Your task to perform on an android device: View the shopping cart on amazon.com. Add "macbook pro" to the cart on amazon.com, then select checkout. Image 0: 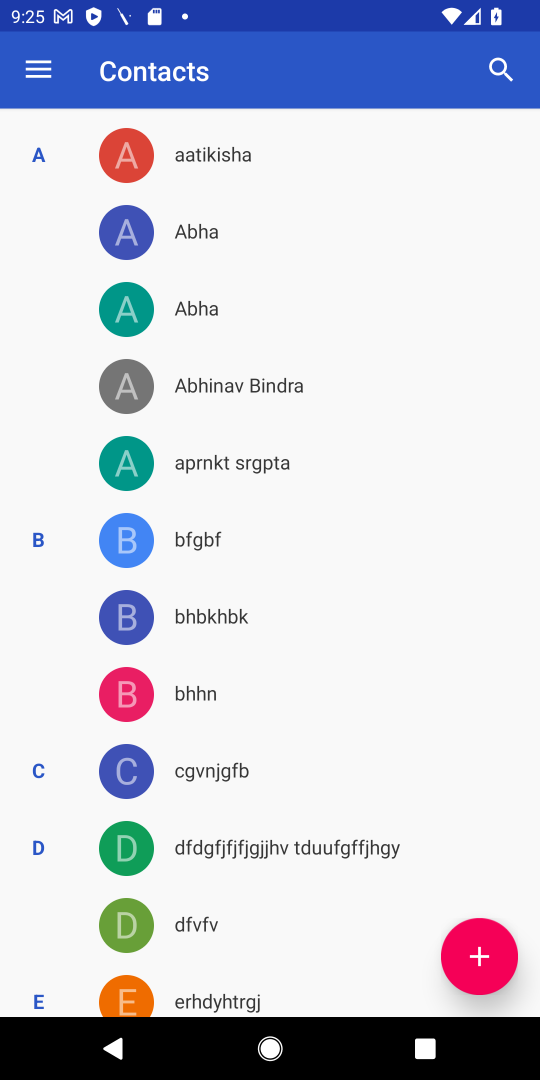
Step 0: press home button
Your task to perform on an android device: View the shopping cart on amazon.com. Add "macbook pro" to the cart on amazon.com, then select checkout. Image 1: 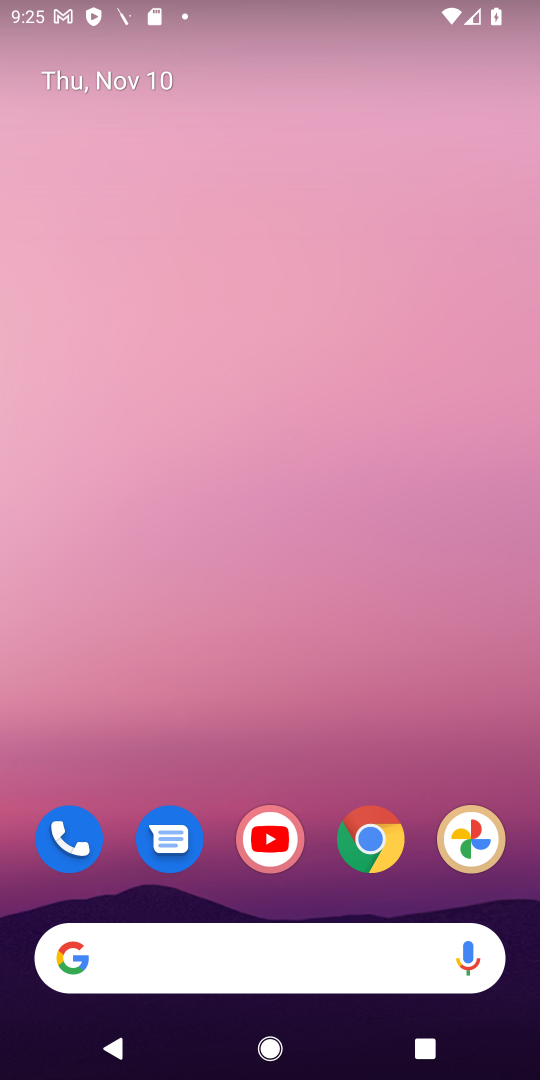
Step 1: click (373, 844)
Your task to perform on an android device: View the shopping cart on amazon.com. Add "macbook pro" to the cart on amazon.com, then select checkout. Image 2: 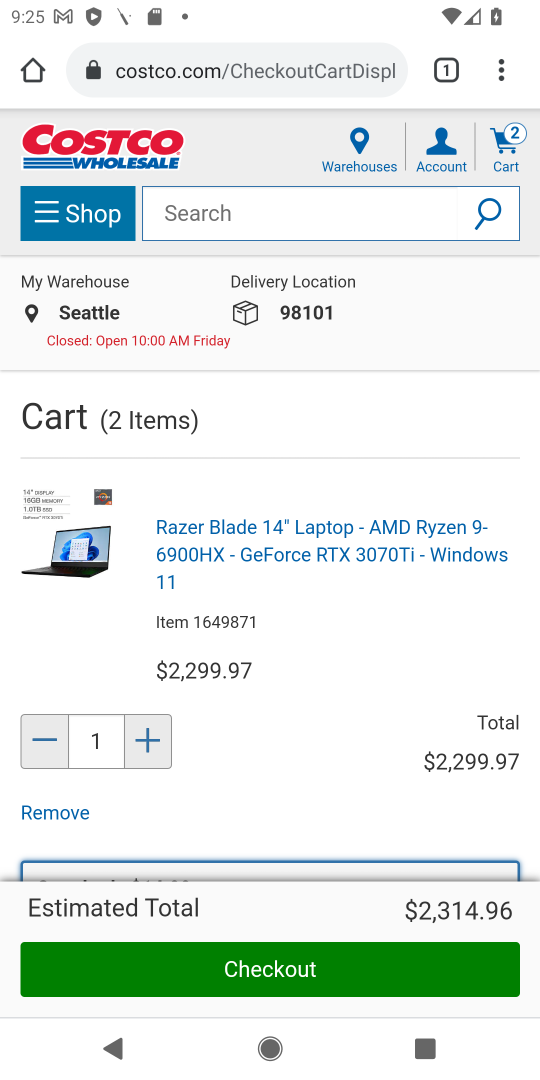
Step 2: click (288, 61)
Your task to perform on an android device: View the shopping cart on amazon.com. Add "macbook pro" to the cart on amazon.com, then select checkout. Image 3: 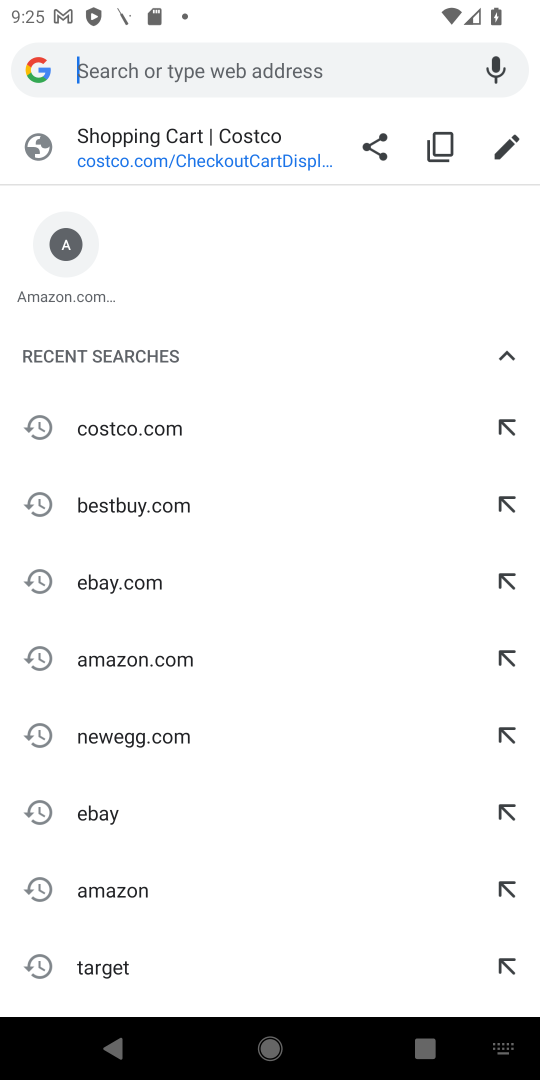
Step 3: type "amazon.com"
Your task to perform on an android device: View the shopping cart on amazon.com. Add "macbook pro" to the cart on amazon.com, then select checkout. Image 4: 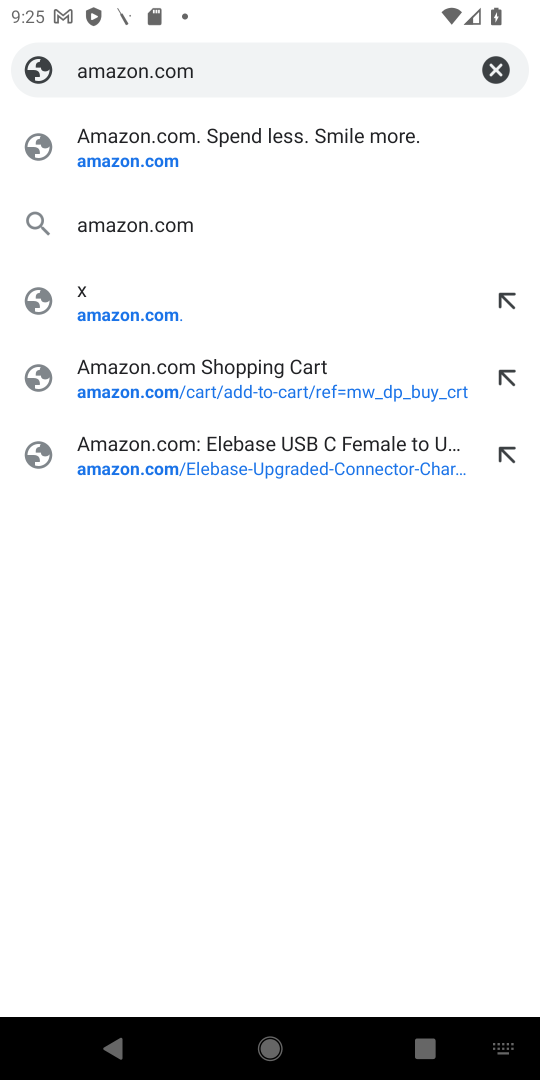
Step 4: click (165, 229)
Your task to perform on an android device: View the shopping cart on amazon.com. Add "macbook pro" to the cart on amazon.com, then select checkout. Image 5: 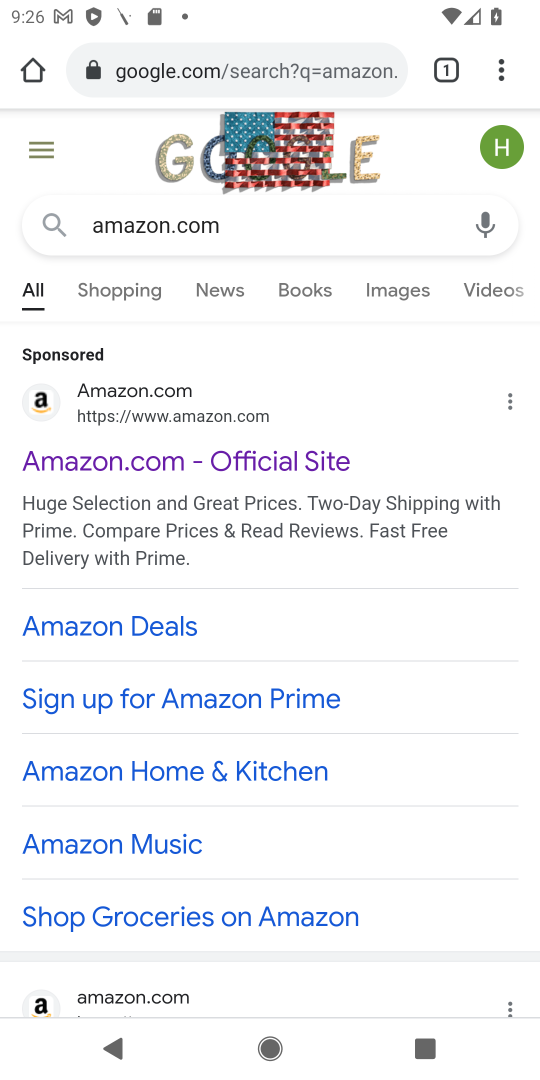
Step 5: click (200, 409)
Your task to perform on an android device: View the shopping cart on amazon.com. Add "macbook pro" to the cart on amazon.com, then select checkout. Image 6: 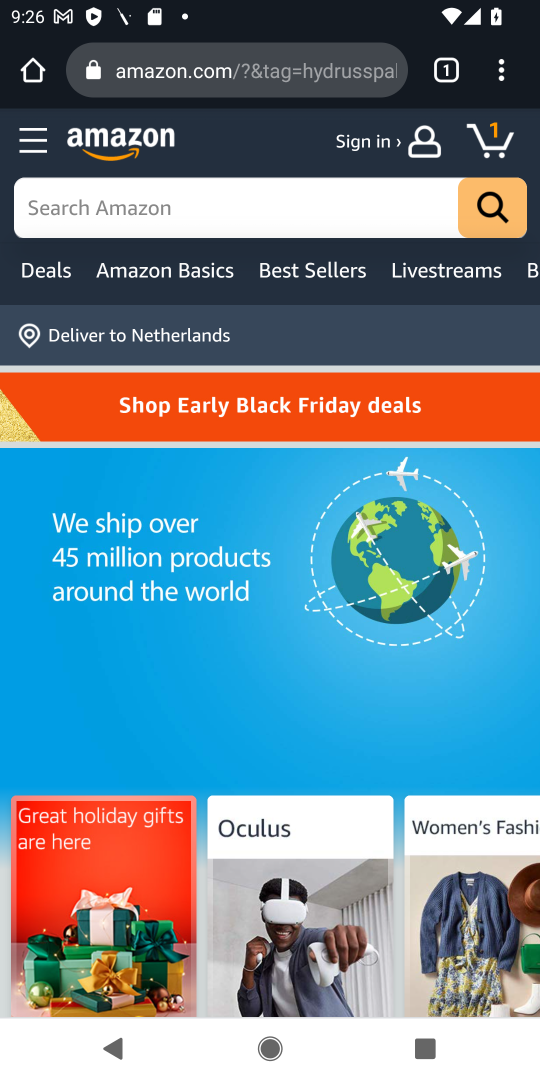
Step 6: click (336, 206)
Your task to perform on an android device: View the shopping cart on amazon.com. Add "macbook pro" to the cart on amazon.com, then select checkout. Image 7: 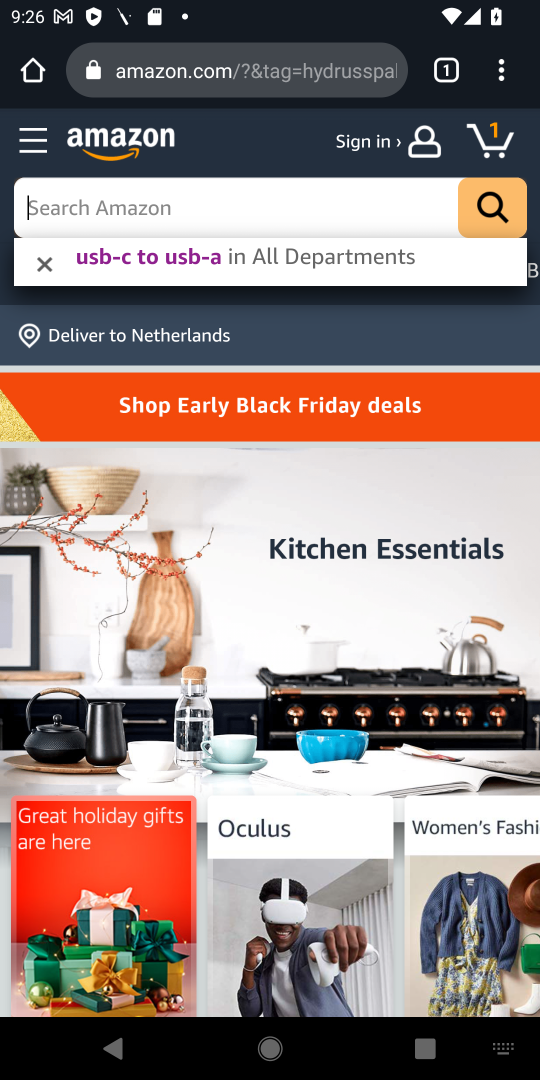
Step 7: type "macbook pro"
Your task to perform on an android device: View the shopping cart on amazon.com. Add "macbook pro" to the cart on amazon.com, then select checkout. Image 8: 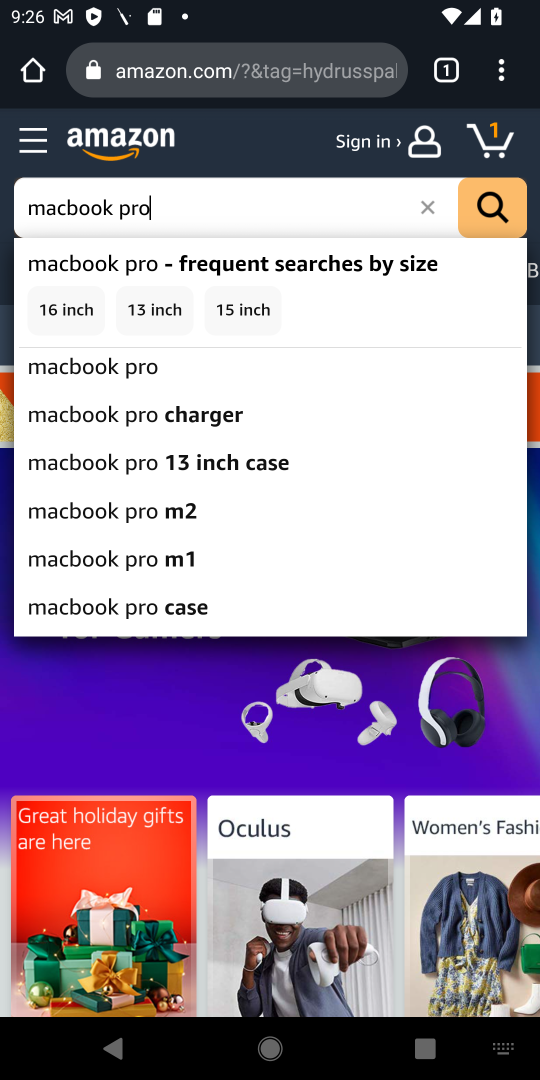
Step 8: click (138, 366)
Your task to perform on an android device: View the shopping cart on amazon.com. Add "macbook pro" to the cart on amazon.com, then select checkout. Image 9: 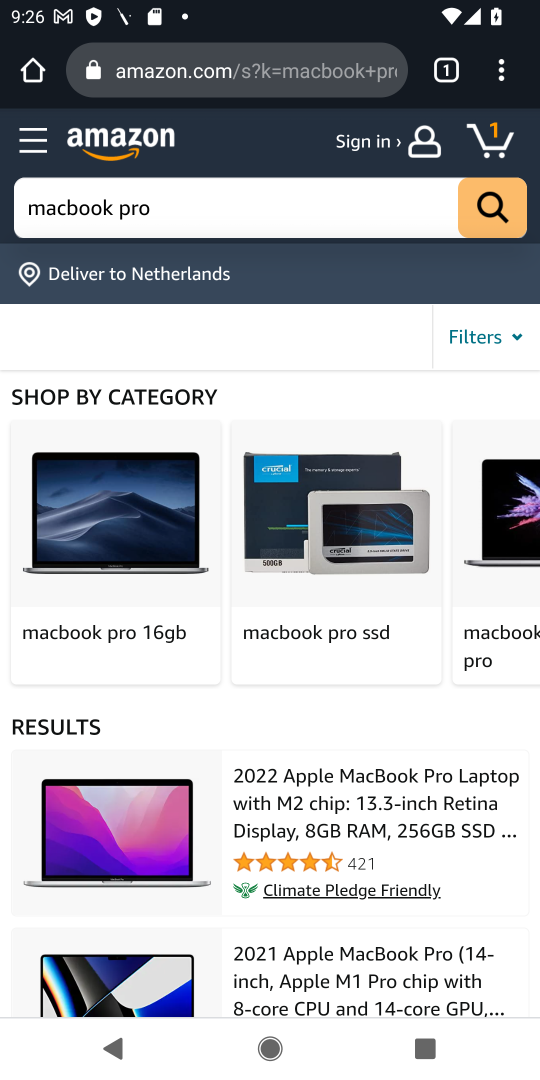
Step 9: click (387, 785)
Your task to perform on an android device: View the shopping cart on amazon.com. Add "macbook pro" to the cart on amazon.com, then select checkout. Image 10: 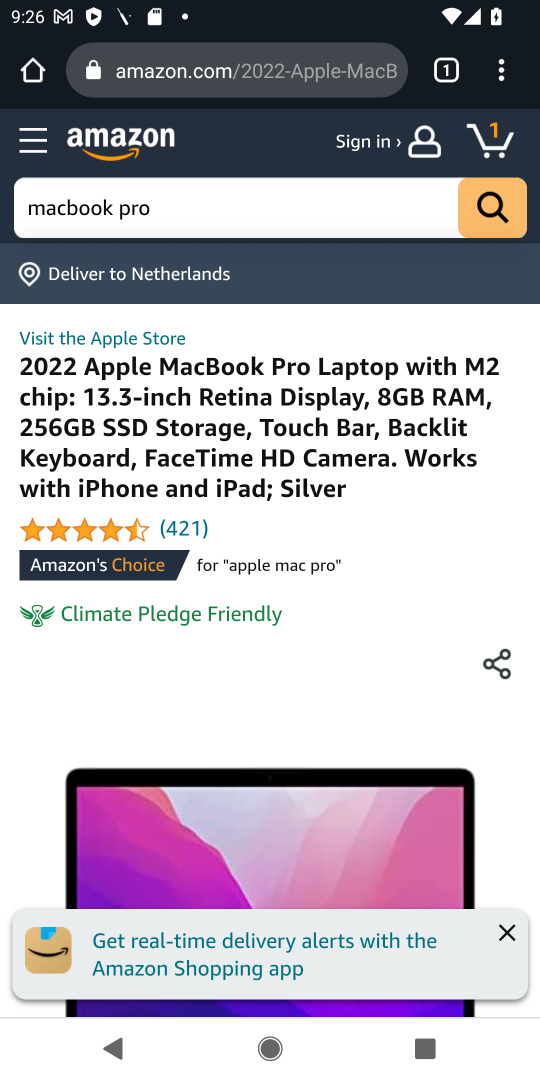
Step 10: drag from (340, 702) to (366, 361)
Your task to perform on an android device: View the shopping cart on amazon.com. Add "macbook pro" to the cart on amazon.com, then select checkout. Image 11: 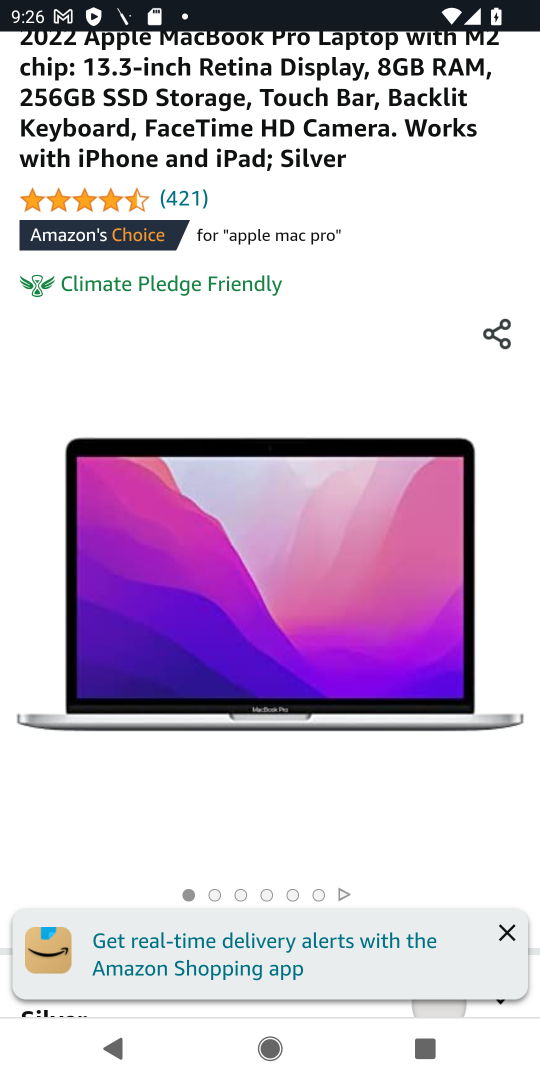
Step 11: drag from (372, 807) to (349, 396)
Your task to perform on an android device: View the shopping cart on amazon.com. Add "macbook pro" to the cart on amazon.com, then select checkout. Image 12: 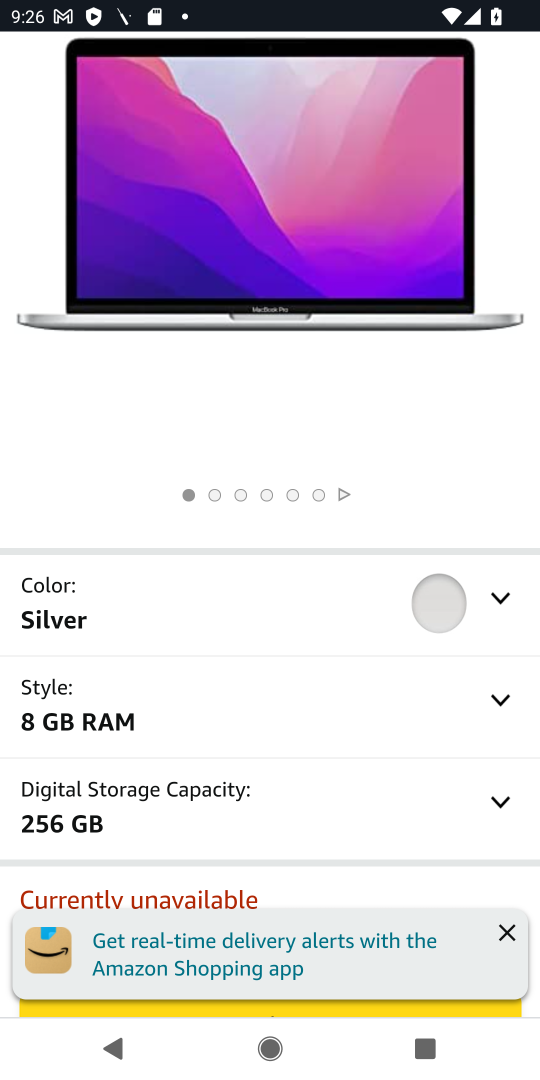
Step 12: drag from (269, 566) to (257, 477)
Your task to perform on an android device: View the shopping cart on amazon.com. Add "macbook pro" to the cart on amazon.com, then select checkout. Image 13: 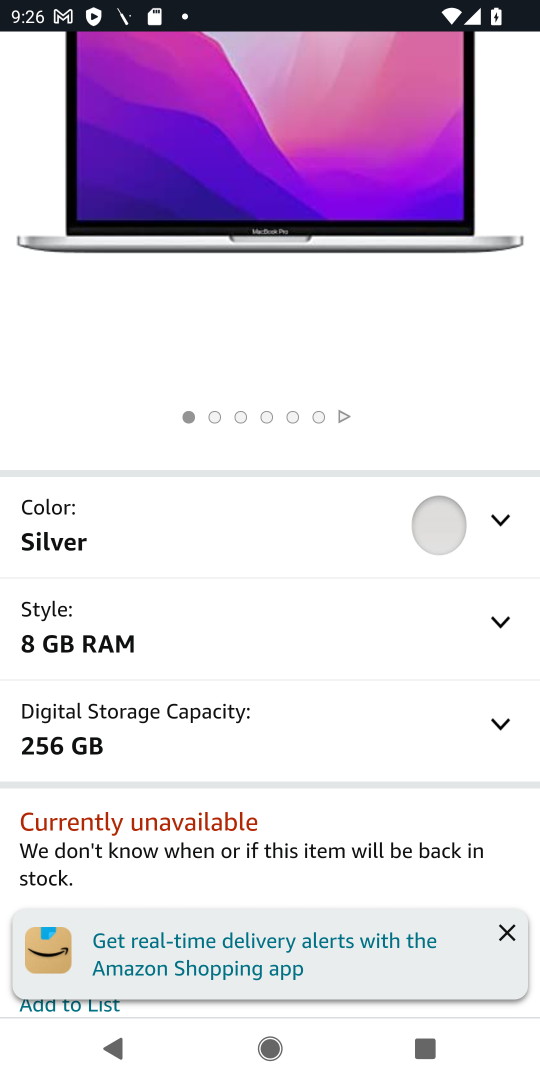
Step 13: drag from (404, 690) to (368, 445)
Your task to perform on an android device: View the shopping cart on amazon.com. Add "macbook pro" to the cart on amazon.com, then select checkout. Image 14: 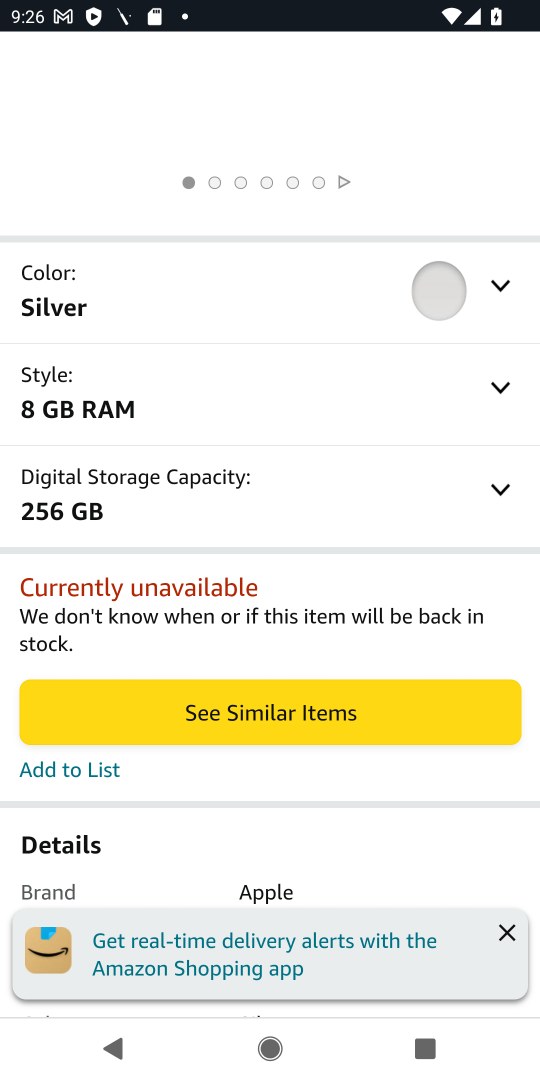
Step 14: press back button
Your task to perform on an android device: View the shopping cart on amazon.com. Add "macbook pro" to the cart on amazon.com, then select checkout. Image 15: 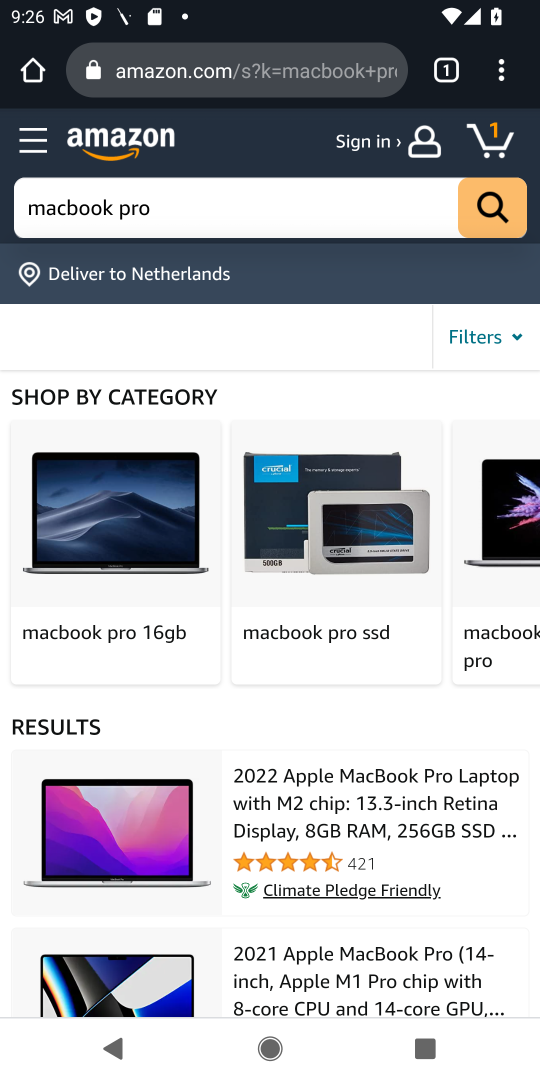
Step 15: drag from (362, 774) to (362, 393)
Your task to perform on an android device: View the shopping cart on amazon.com. Add "macbook pro" to the cart on amazon.com, then select checkout. Image 16: 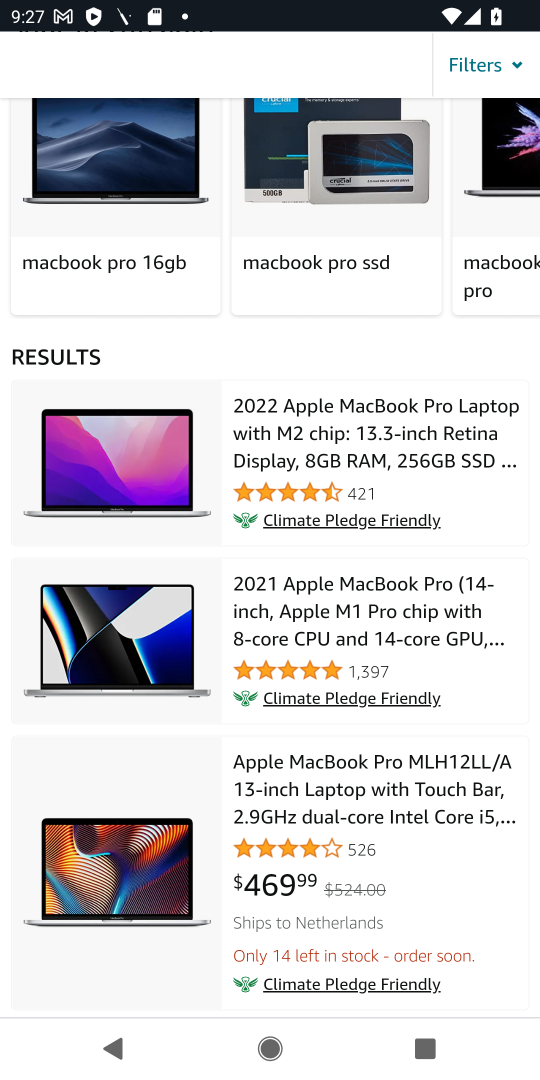
Step 16: click (150, 626)
Your task to perform on an android device: View the shopping cart on amazon.com. Add "macbook pro" to the cart on amazon.com, then select checkout. Image 17: 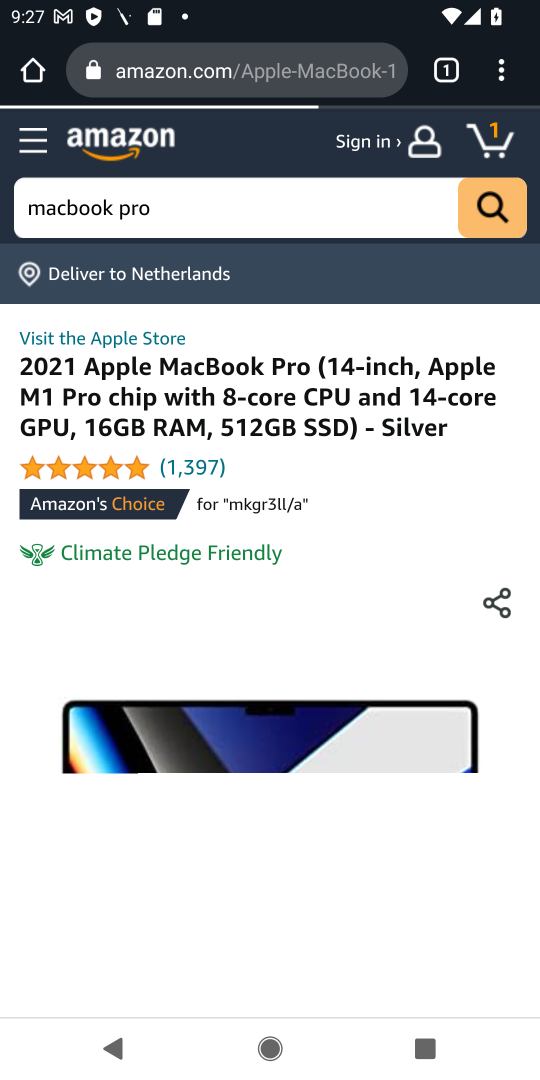
Step 17: drag from (336, 594) to (327, 202)
Your task to perform on an android device: View the shopping cart on amazon.com. Add "macbook pro" to the cart on amazon.com, then select checkout. Image 18: 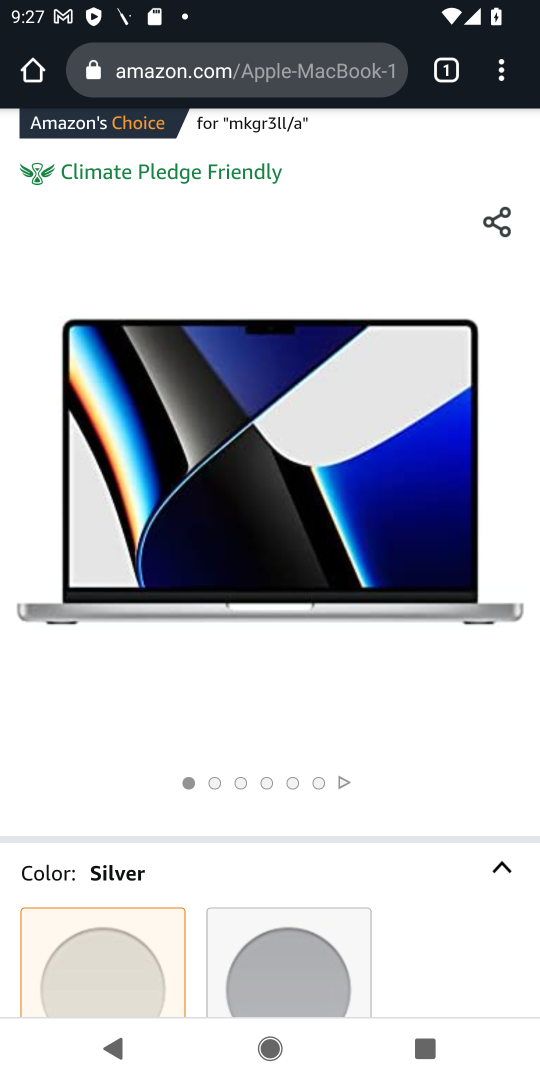
Step 18: drag from (382, 494) to (363, 281)
Your task to perform on an android device: View the shopping cart on amazon.com. Add "macbook pro" to the cart on amazon.com, then select checkout. Image 19: 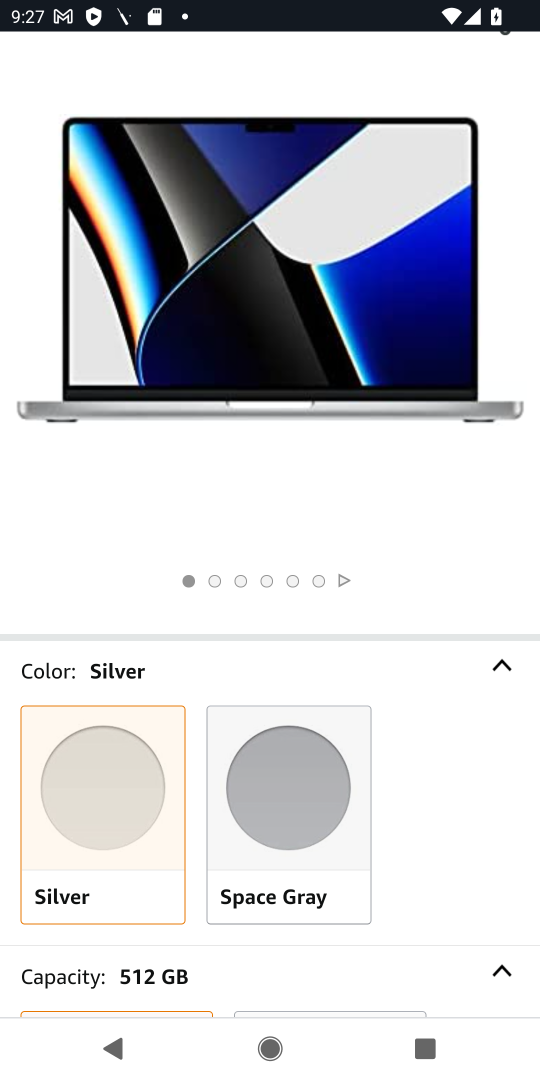
Step 19: drag from (437, 834) to (363, 322)
Your task to perform on an android device: View the shopping cart on amazon.com. Add "macbook pro" to the cart on amazon.com, then select checkout. Image 20: 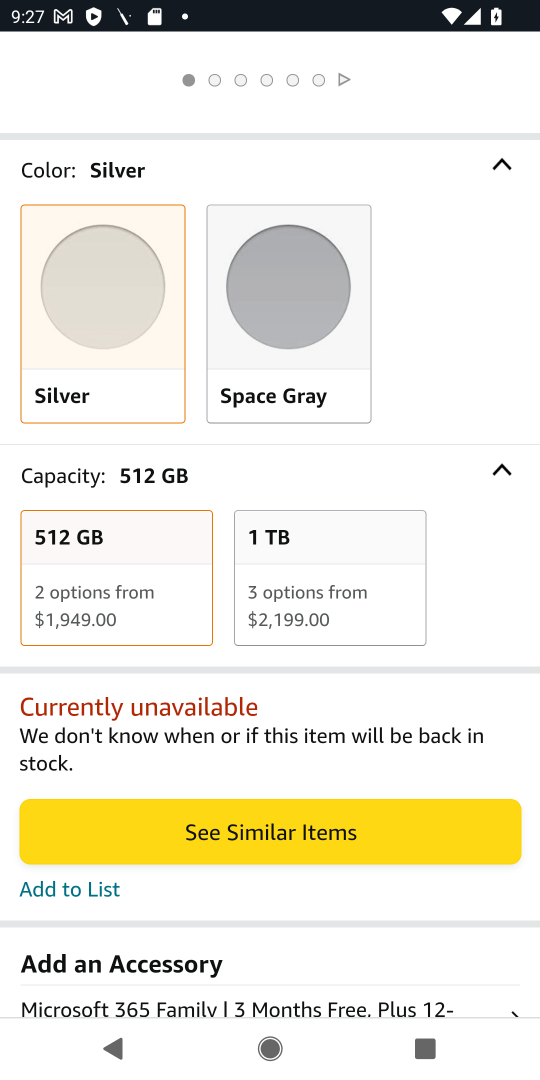
Step 20: press back button
Your task to perform on an android device: View the shopping cart on amazon.com. Add "macbook pro" to the cart on amazon.com, then select checkout. Image 21: 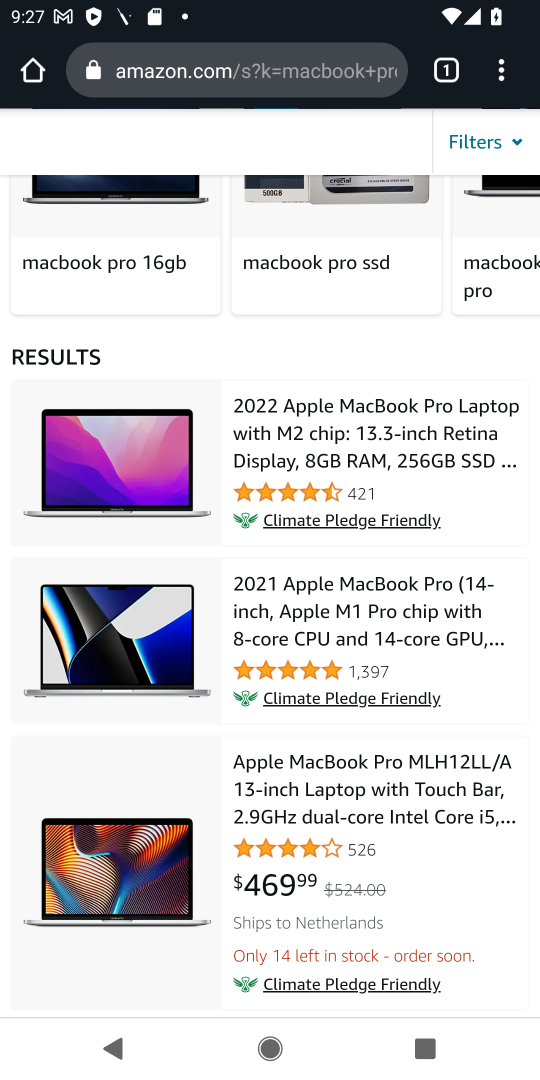
Step 21: click (364, 528)
Your task to perform on an android device: View the shopping cart on amazon.com. Add "macbook pro" to the cart on amazon.com, then select checkout. Image 22: 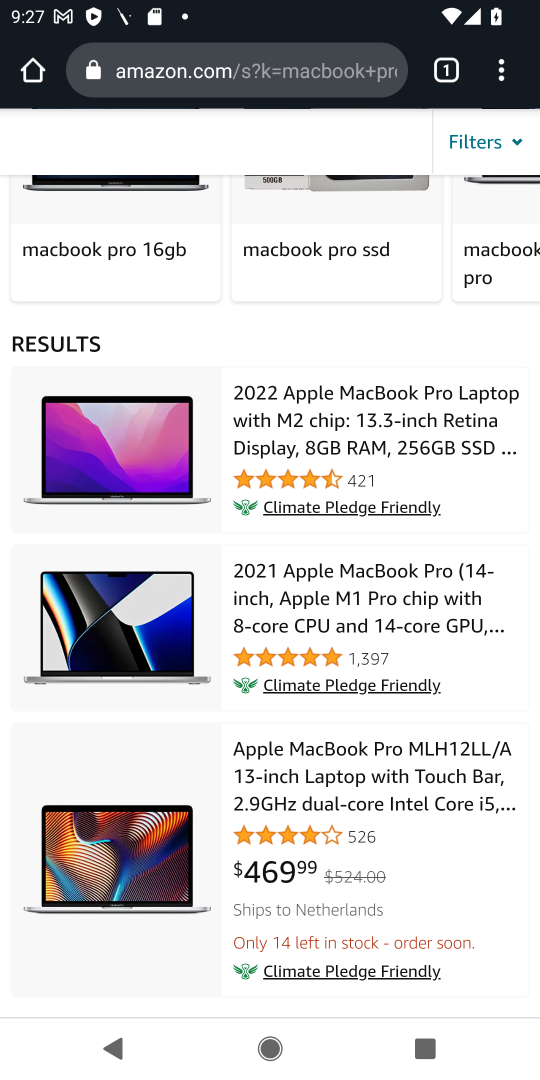
Step 22: drag from (357, 600) to (402, 183)
Your task to perform on an android device: View the shopping cart on amazon.com. Add "macbook pro" to the cart on amazon.com, then select checkout. Image 23: 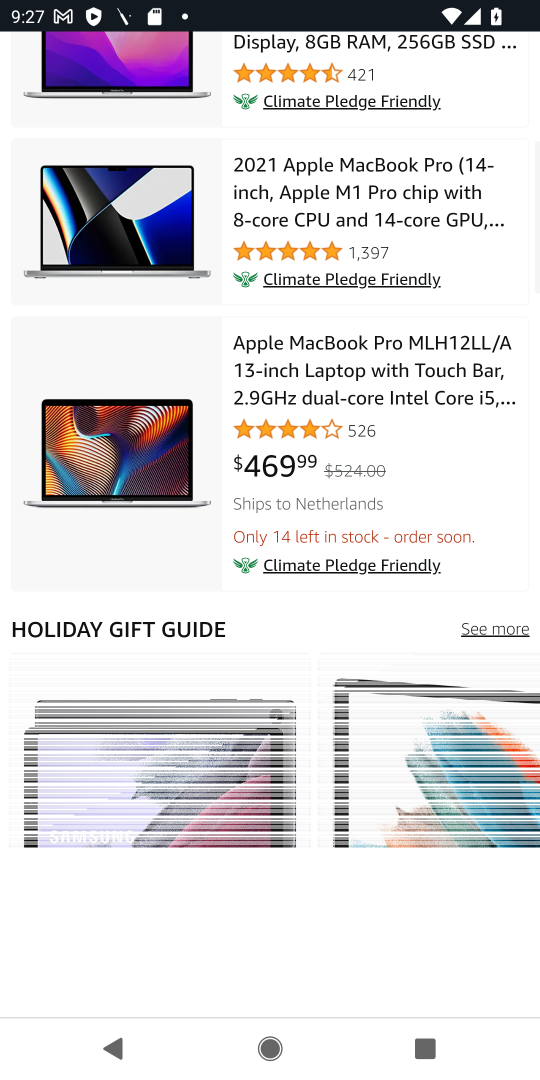
Step 23: drag from (297, 675) to (363, 318)
Your task to perform on an android device: View the shopping cart on amazon.com. Add "macbook pro" to the cart on amazon.com, then select checkout. Image 24: 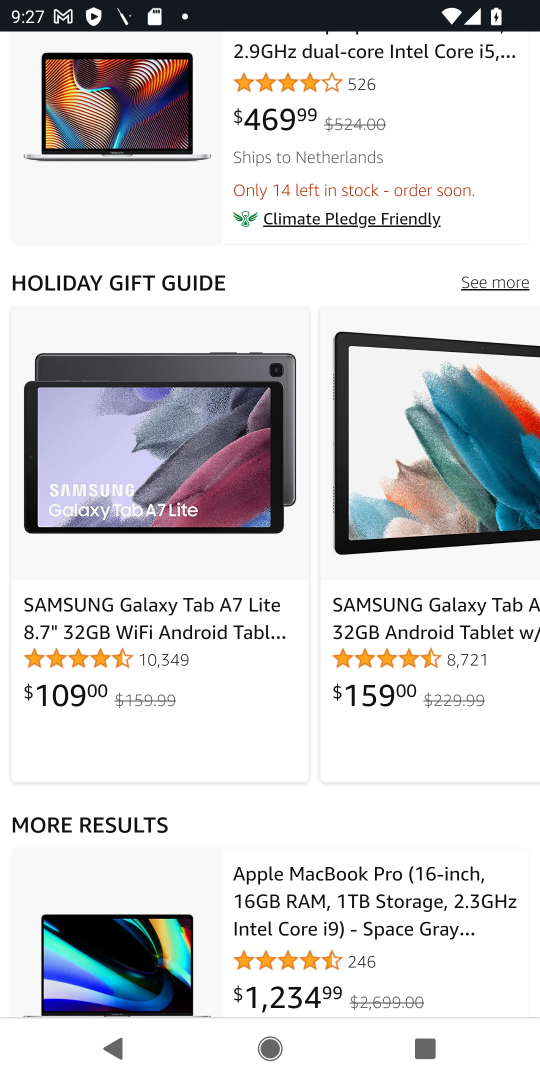
Step 24: drag from (357, 715) to (389, 434)
Your task to perform on an android device: View the shopping cart on amazon.com. Add "macbook pro" to the cart on amazon.com, then select checkout. Image 25: 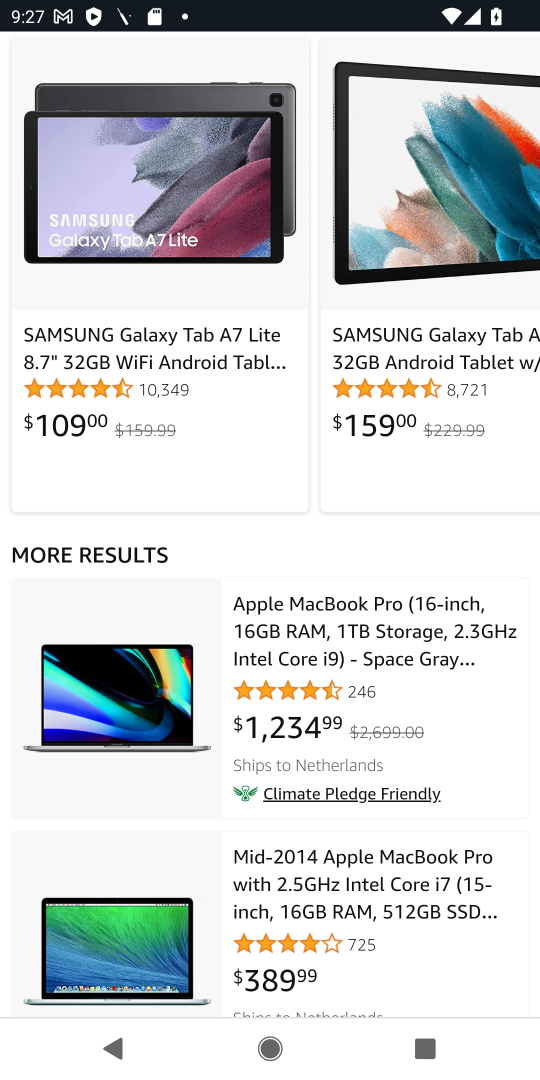
Step 25: click (162, 695)
Your task to perform on an android device: View the shopping cart on amazon.com. Add "macbook pro" to the cart on amazon.com, then select checkout. Image 26: 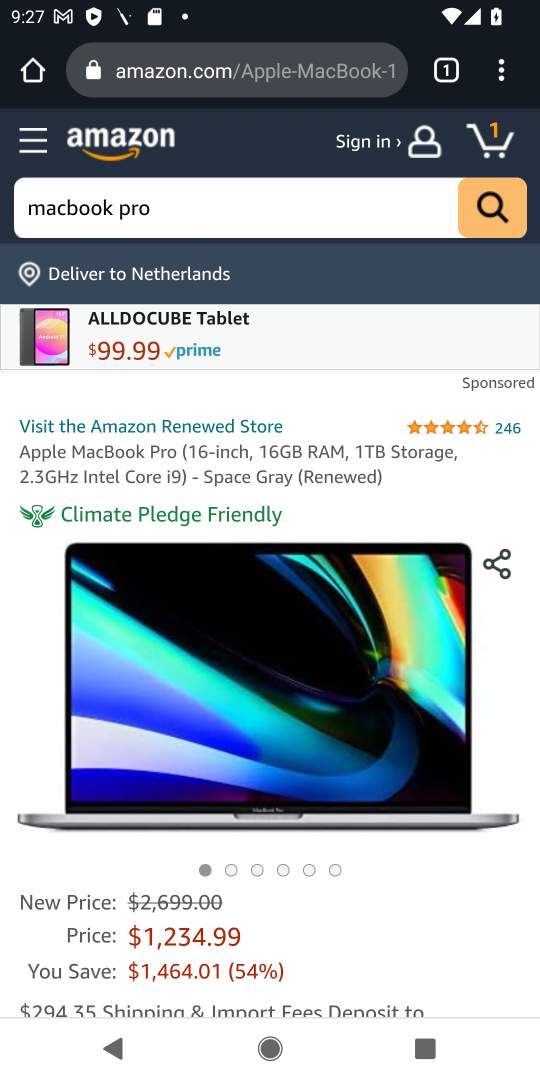
Step 26: drag from (418, 843) to (437, 274)
Your task to perform on an android device: View the shopping cart on amazon.com. Add "macbook pro" to the cart on amazon.com, then select checkout. Image 27: 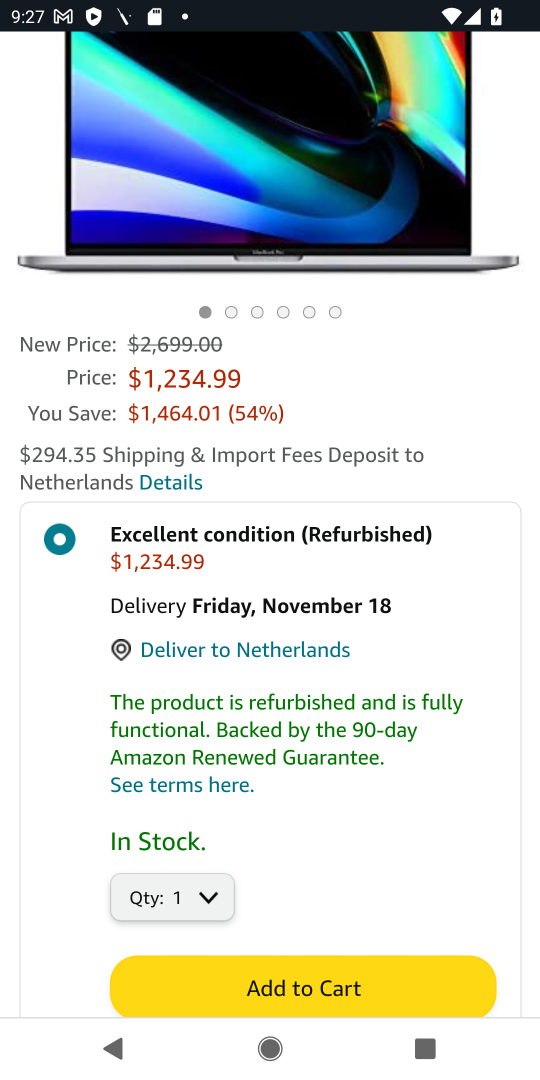
Step 27: drag from (415, 786) to (407, 604)
Your task to perform on an android device: View the shopping cart on amazon.com. Add "macbook pro" to the cart on amazon.com, then select checkout. Image 28: 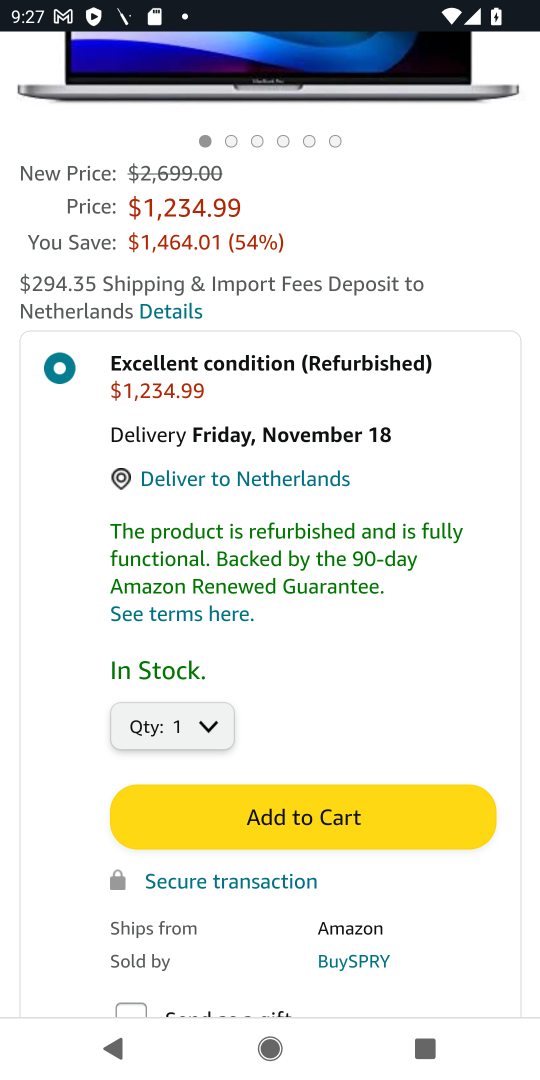
Step 28: click (336, 815)
Your task to perform on an android device: View the shopping cart on amazon.com. Add "macbook pro" to the cart on amazon.com, then select checkout. Image 29: 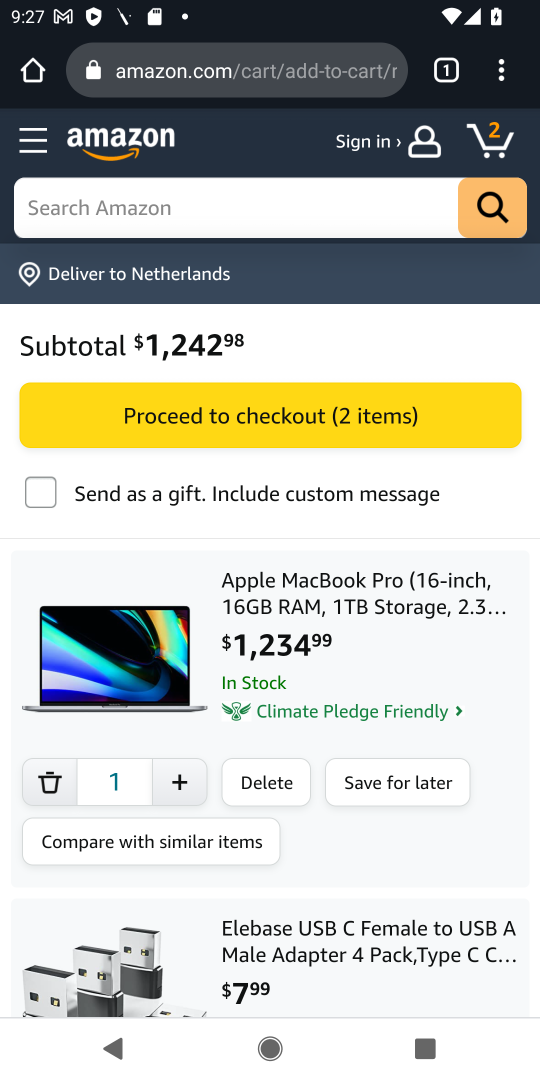
Step 29: click (245, 409)
Your task to perform on an android device: View the shopping cart on amazon.com. Add "macbook pro" to the cart on amazon.com, then select checkout. Image 30: 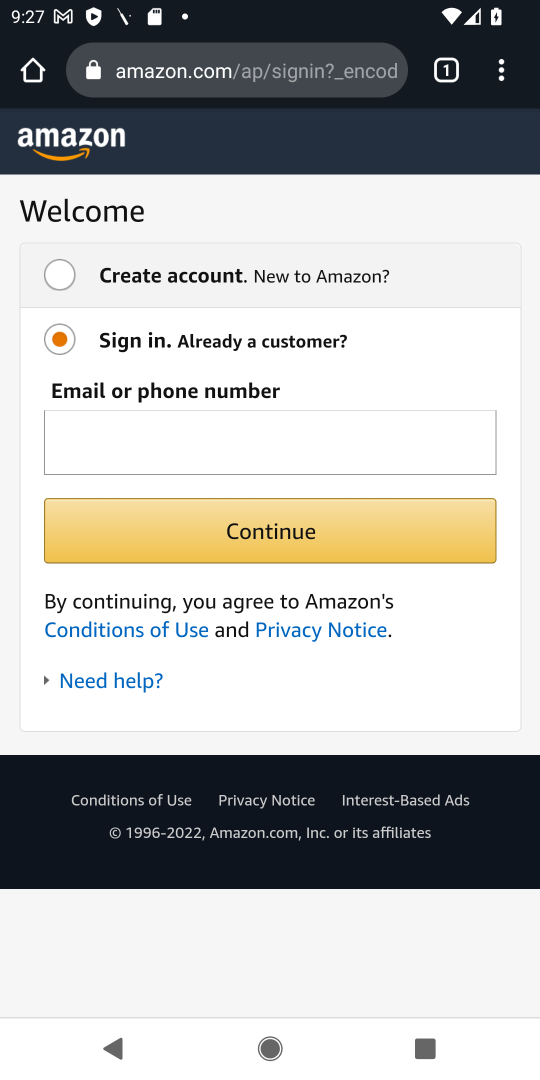
Step 30: task complete